Your task to perform on an android device: open app "Life360: Find Family & Friends" (install if not already installed) Image 0: 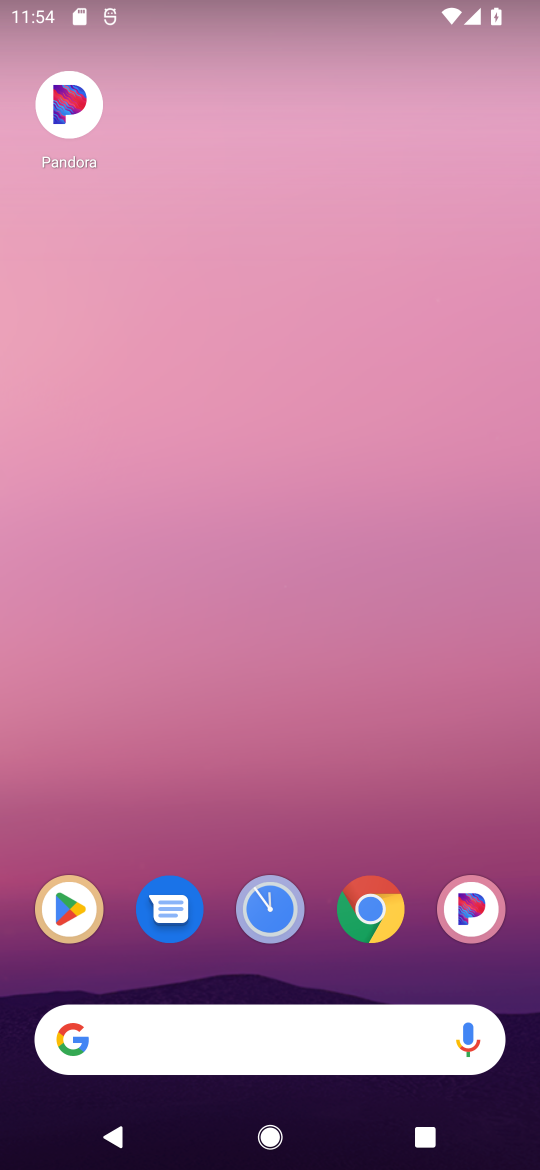
Step 0: click (56, 913)
Your task to perform on an android device: open app "Life360: Find Family & Friends" (install if not already installed) Image 1: 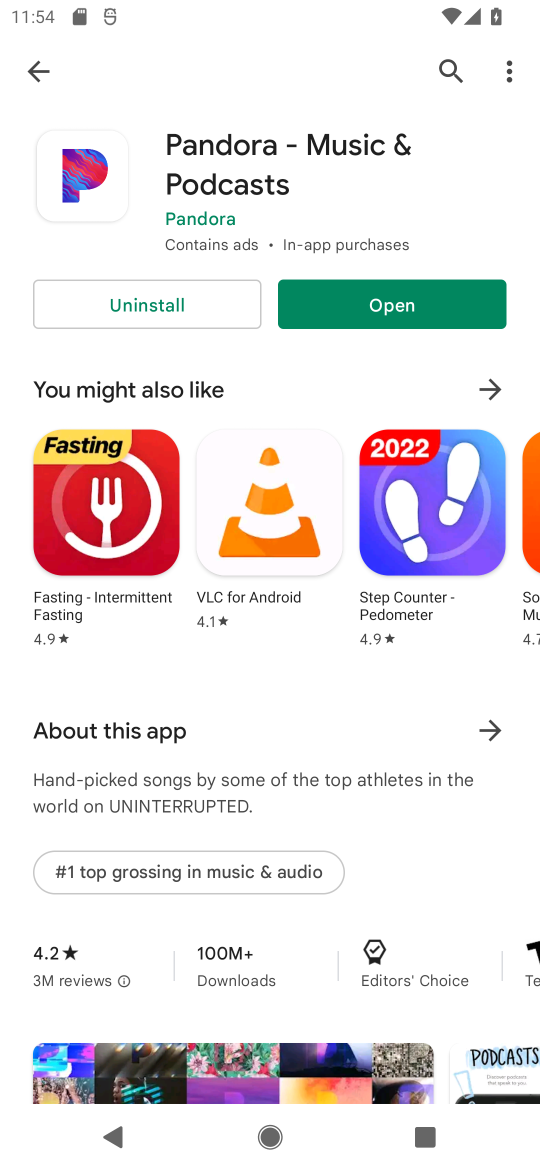
Step 1: click (34, 72)
Your task to perform on an android device: open app "Life360: Find Family & Friends" (install if not already installed) Image 2: 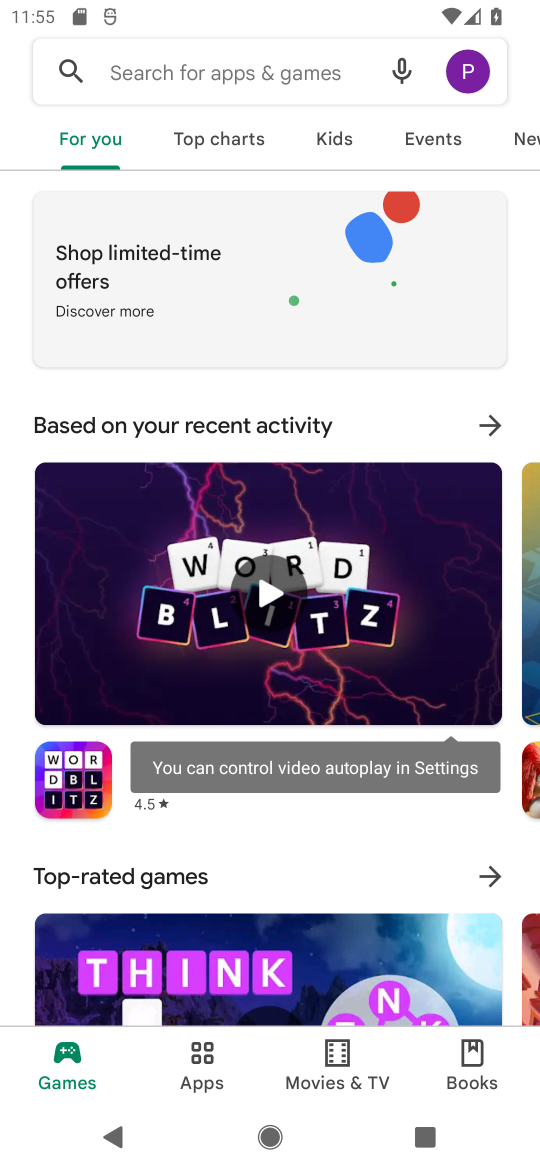
Step 2: click (279, 77)
Your task to perform on an android device: open app "Life360: Find Family & Friends" (install if not already installed) Image 3: 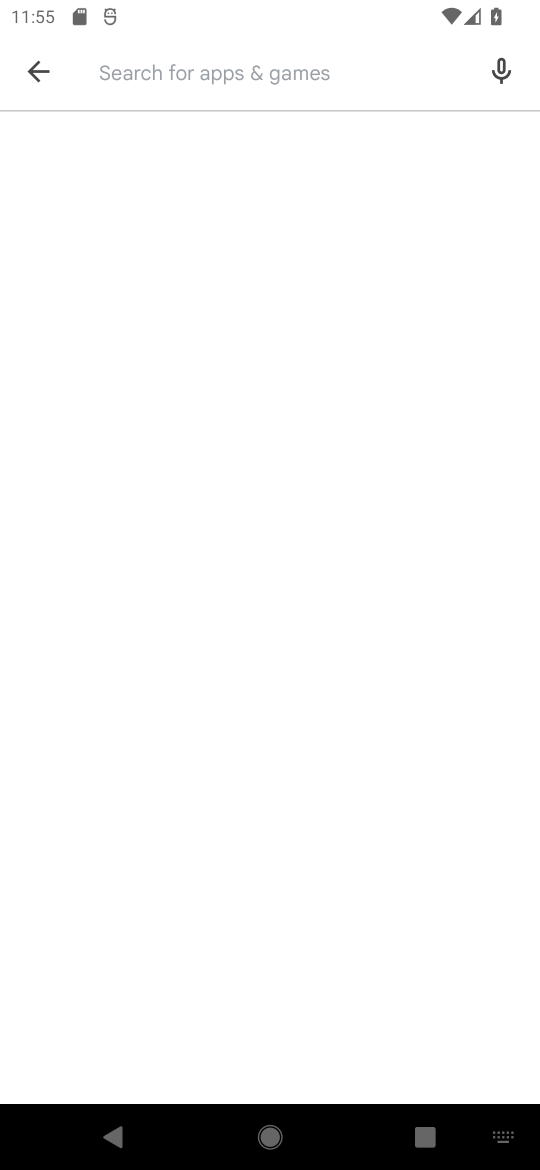
Step 3: type "Life360"
Your task to perform on an android device: open app "Life360: Find Family & Friends" (install if not already installed) Image 4: 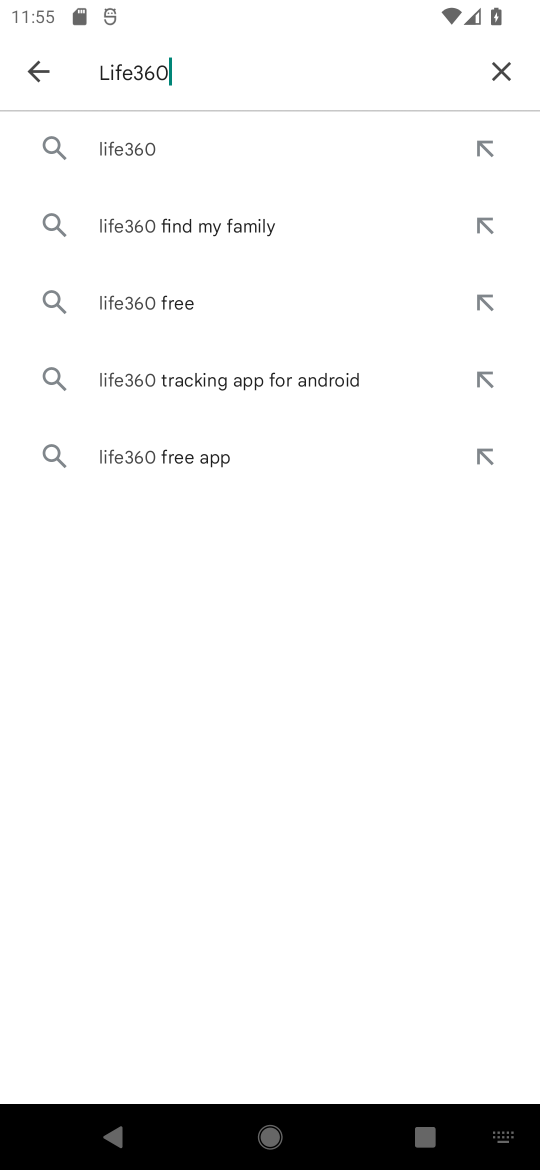
Step 4: click (130, 154)
Your task to perform on an android device: open app "Life360: Find Family & Friends" (install if not already installed) Image 5: 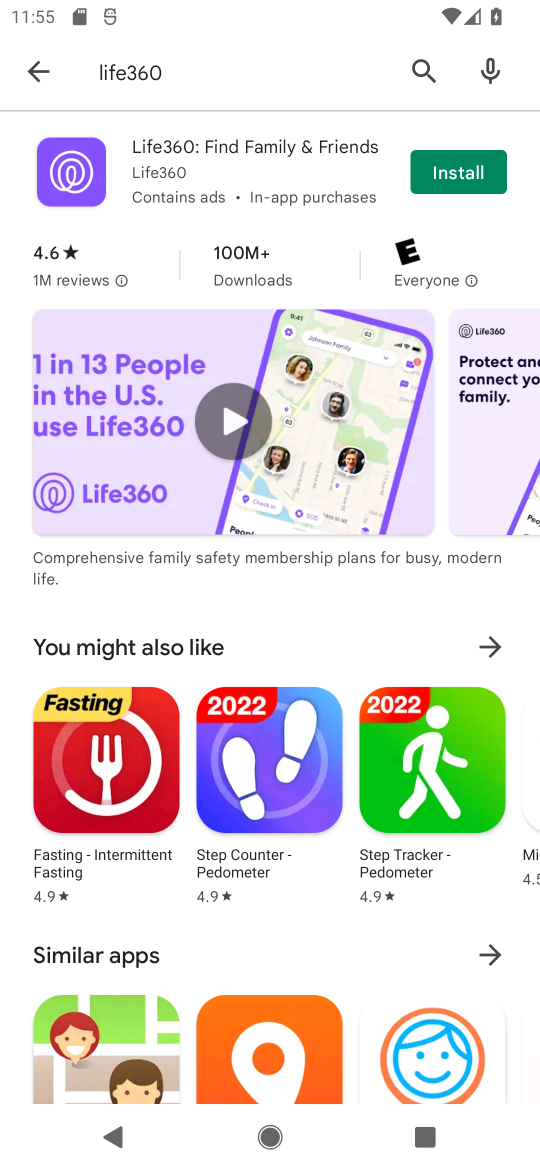
Step 5: click (419, 165)
Your task to perform on an android device: open app "Life360: Find Family & Friends" (install if not already installed) Image 6: 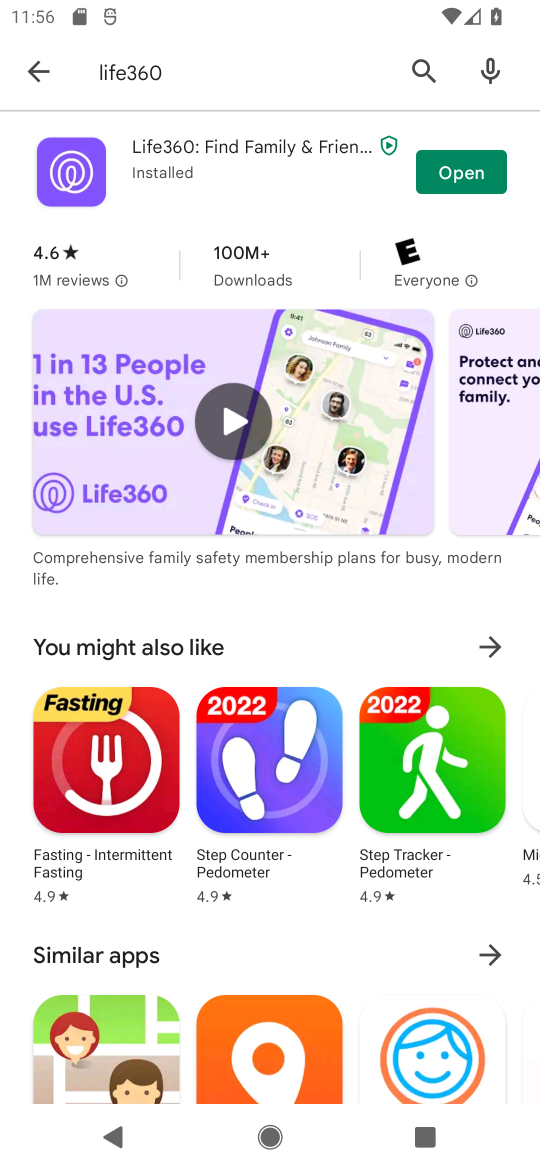
Step 6: click (428, 168)
Your task to perform on an android device: open app "Life360: Find Family & Friends" (install if not already installed) Image 7: 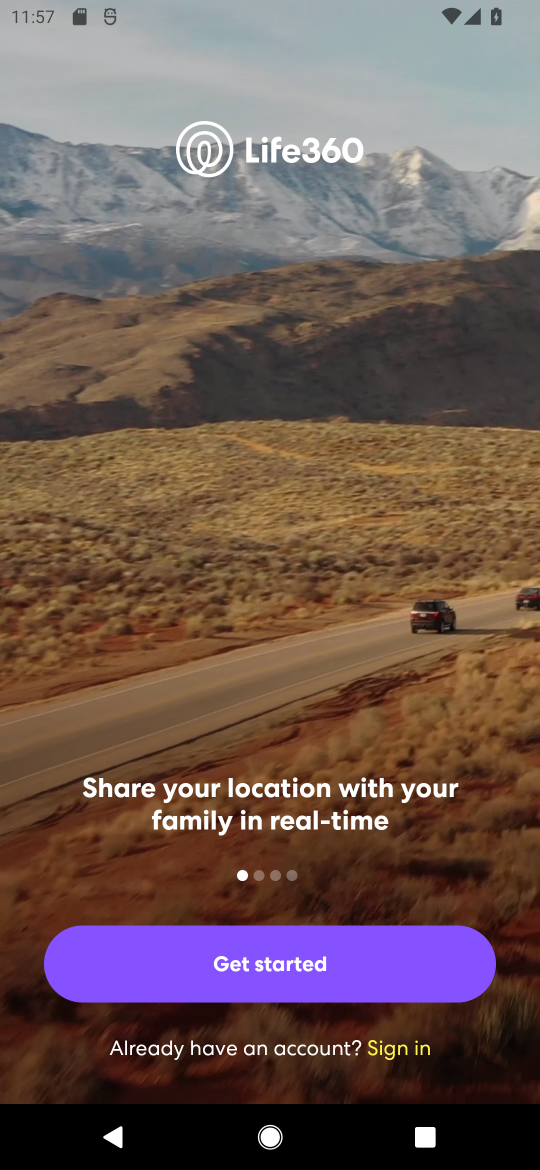
Step 7: task complete